Your task to perform on an android device: uninstall "AliExpress" Image 0: 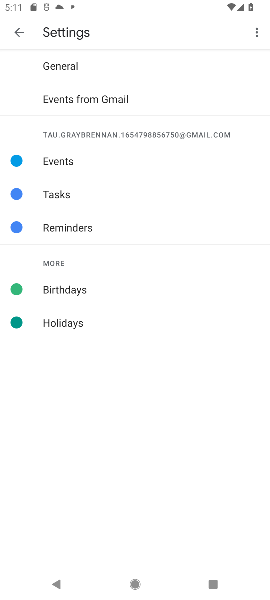
Step 0: press home button
Your task to perform on an android device: uninstall "AliExpress" Image 1: 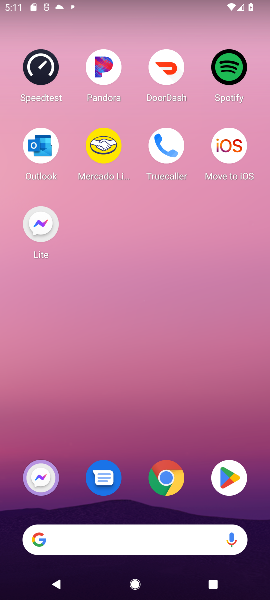
Step 1: click (220, 478)
Your task to perform on an android device: uninstall "AliExpress" Image 2: 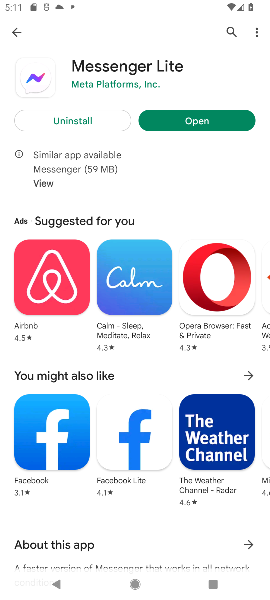
Step 2: click (225, 39)
Your task to perform on an android device: uninstall "AliExpress" Image 3: 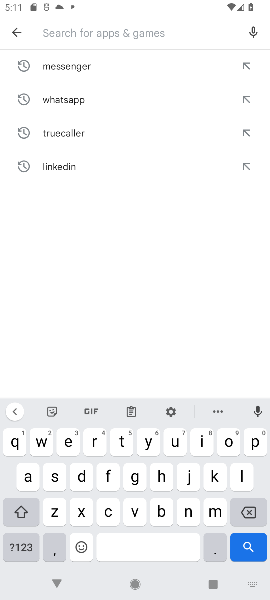
Step 3: click (25, 476)
Your task to perform on an android device: uninstall "AliExpress" Image 4: 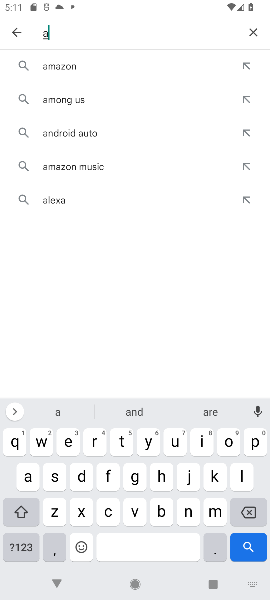
Step 4: click (241, 473)
Your task to perform on an android device: uninstall "AliExpress" Image 5: 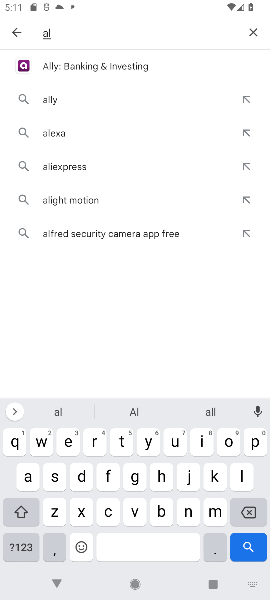
Step 5: click (68, 163)
Your task to perform on an android device: uninstall "AliExpress" Image 6: 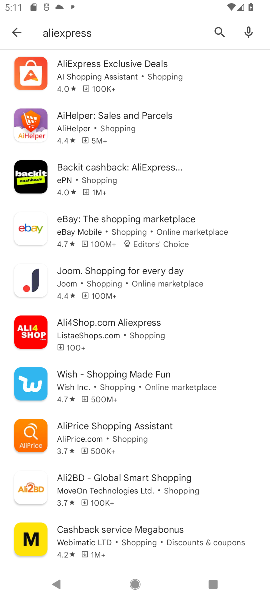
Step 6: click (117, 73)
Your task to perform on an android device: uninstall "AliExpress" Image 7: 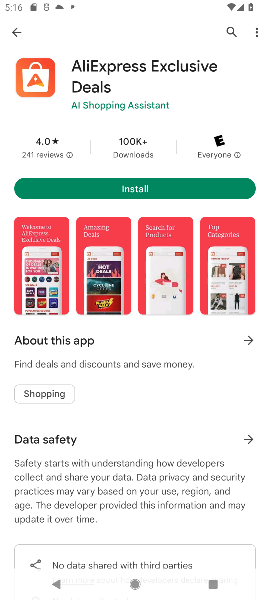
Step 7: task complete